Your task to perform on an android device: turn on data saver in the chrome app Image 0: 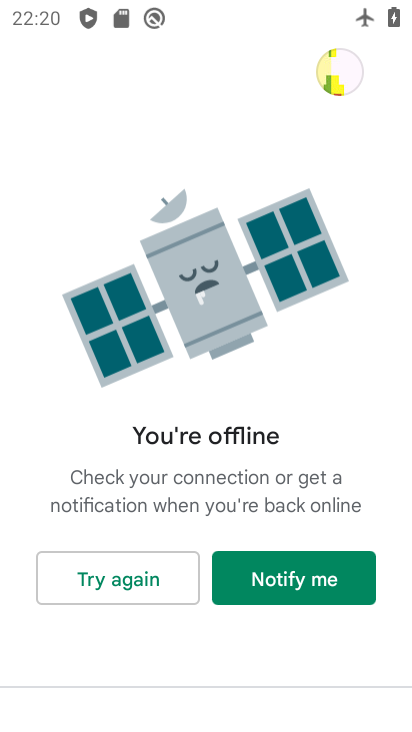
Step 0: press home button
Your task to perform on an android device: turn on data saver in the chrome app Image 1: 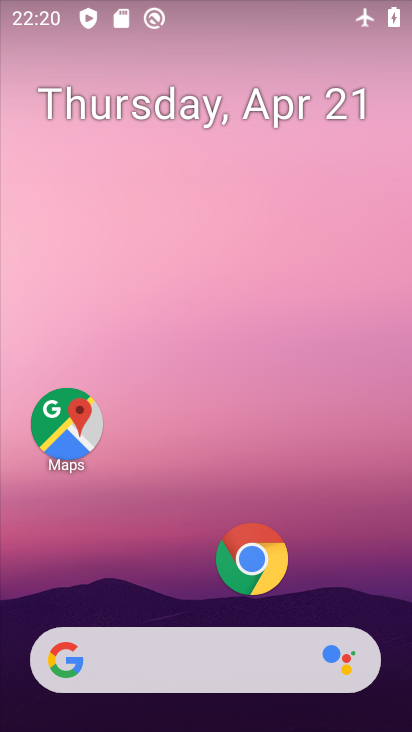
Step 1: click (245, 559)
Your task to perform on an android device: turn on data saver in the chrome app Image 2: 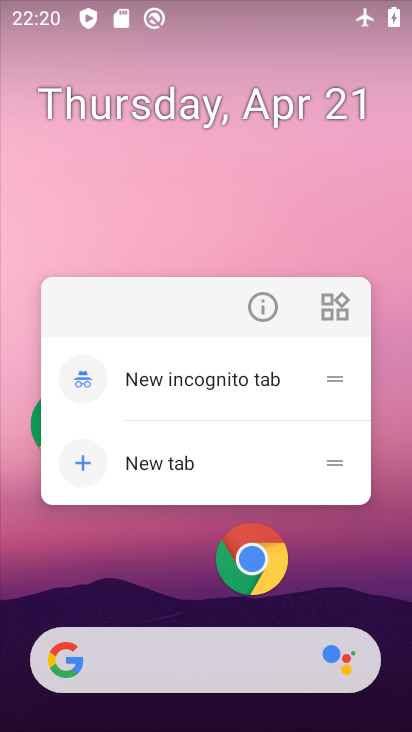
Step 2: click (260, 304)
Your task to perform on an android device: turn on data saver in the chrome app Image 3: 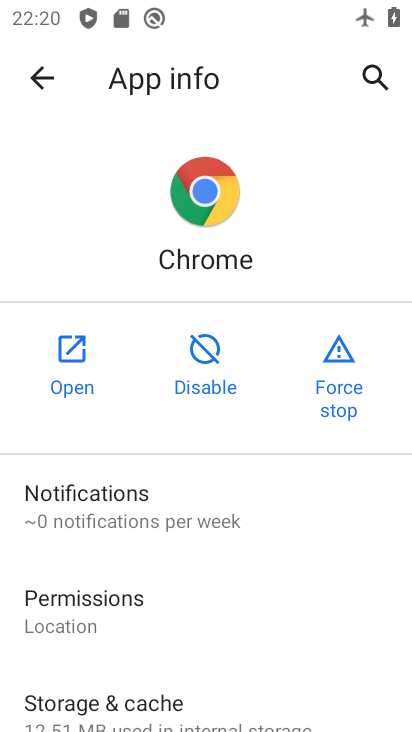
Step 3: click (69, 382)
Your task to perform on an android device: turn on data saver in the chrome app Image 4: 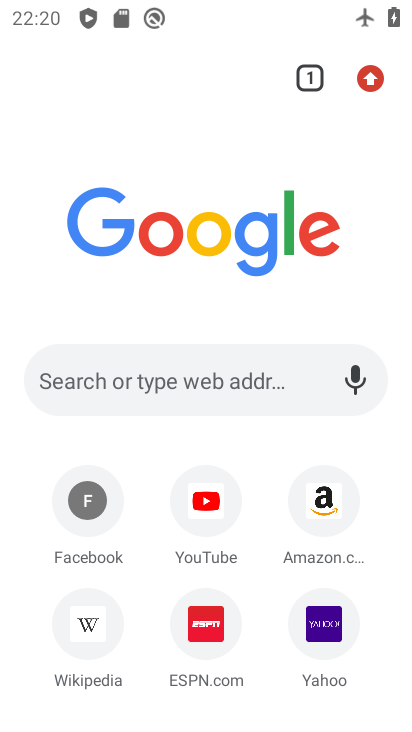
Step 4: click (368, 77)
Your task to perform on an android device: turn on data saver in the chrome app Image 5: 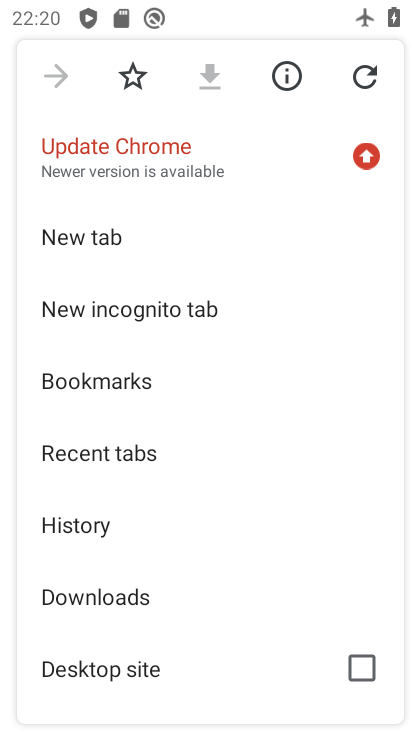
Step 5: drag from (103, 629) to (108, 230)
Your task to perform on an android device: turn on data saver in the chrome app Image 6: 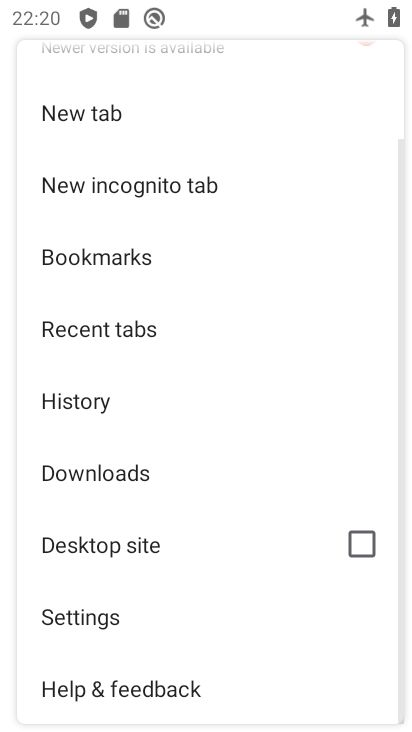
Step 6: click (82, 613)
Your task to perform on an android device: turn on data saver in the chrome app Image 7: 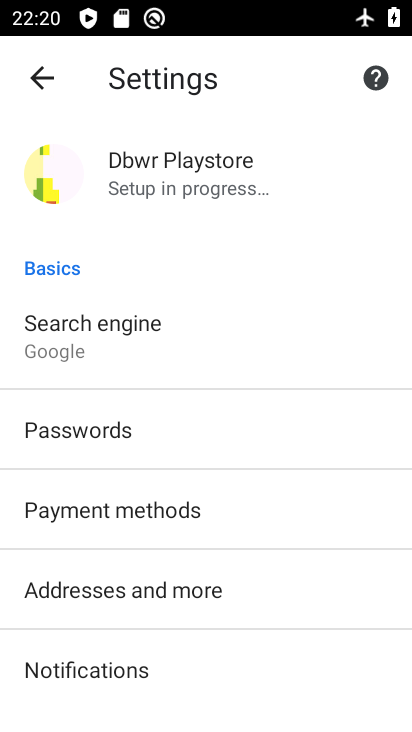
Step 7: drag from (135, 644) to (221, 186)
Your task to perform on an android device: turn on data saver in the chrome app Image 8: 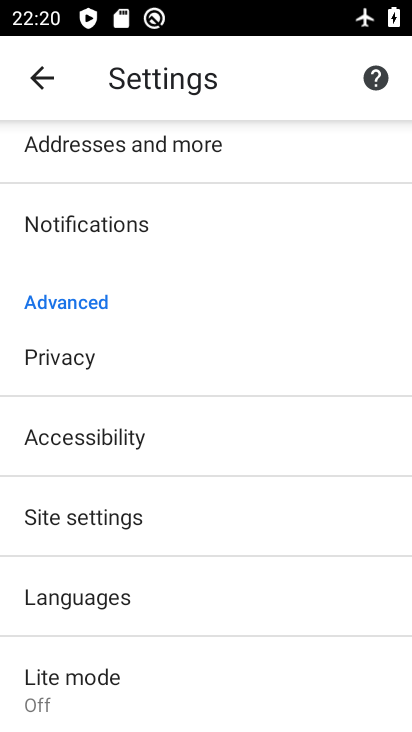
Step 8: click (67, 674)
Your task to perform on an android device: turn on data saver in the chrome app Image 9: 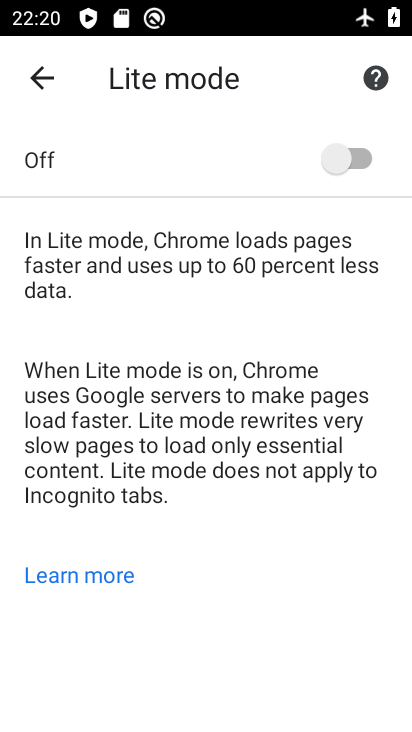
Step 9: click (343, 164)
Your task to perform on an android device: turn on data saver in the chrome app Image 10: 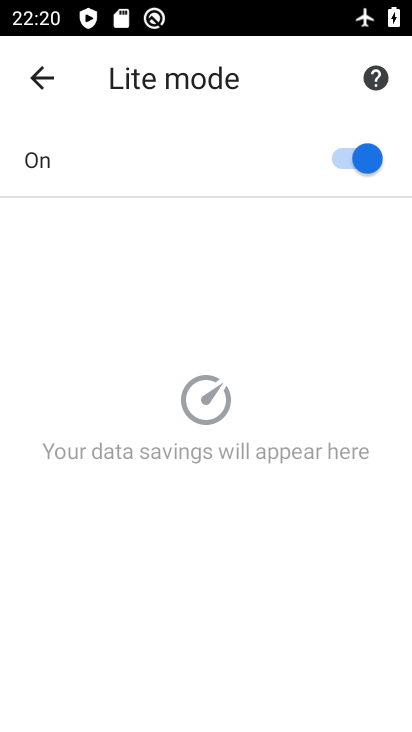
Step 10: task complete